Your task to perform on an android device: add a contact in the contacts app Image 0: 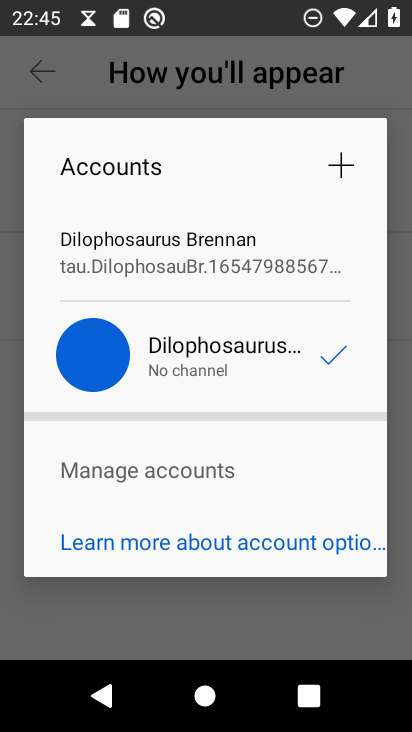
Step 0: press home button
Your task to perform on an android device: add a contact in the contacts app Image 1: 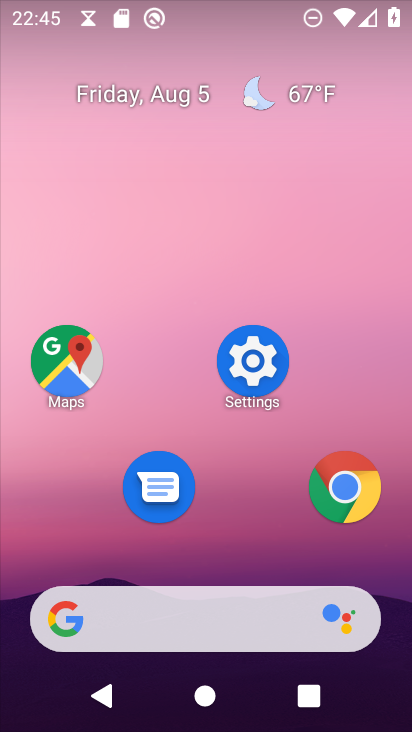
Step 1: drag from (186, 630) to (207, 87)
Your task to perform on an android device: add a contact in the contacts app Image 2: 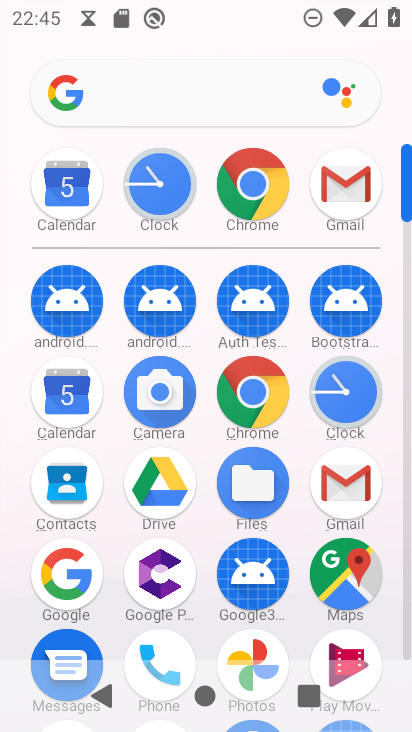
Step 2: click (63, 492)
Your task to perform on an android device: add a contact in the contacts app Image 3: 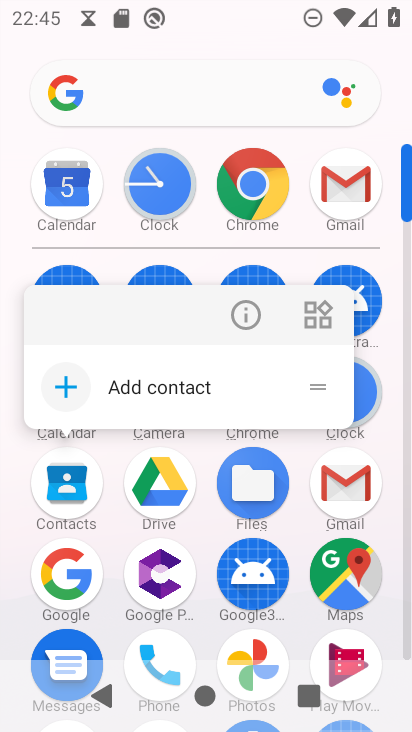
Step 3: click (63, 496)
Your task to perform on an android device: add a contact in the contacts app Image 4: 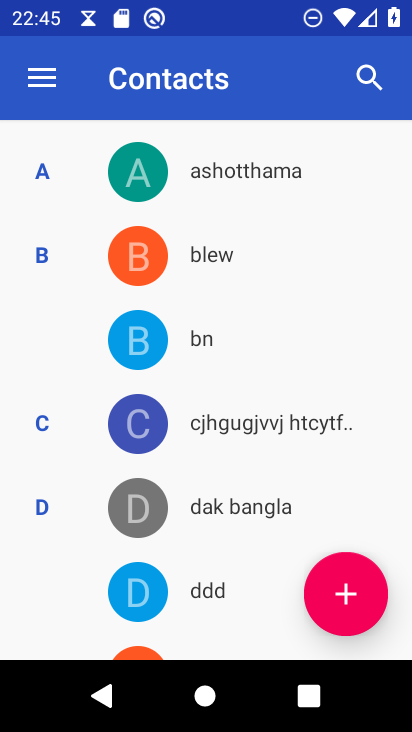
Step 4: click (342, 583)
Your task to perform on an android device: add a contact in the contacts app Image 5: 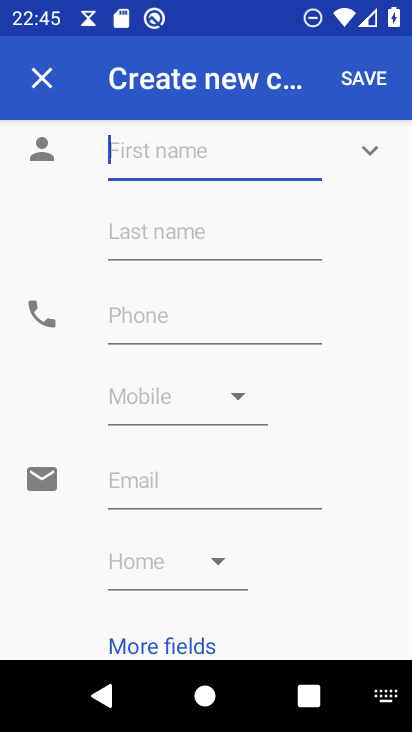
Step 5: type "wsdrree"
Your task to perform on an android device: add a contact in the contacts app Image 6: 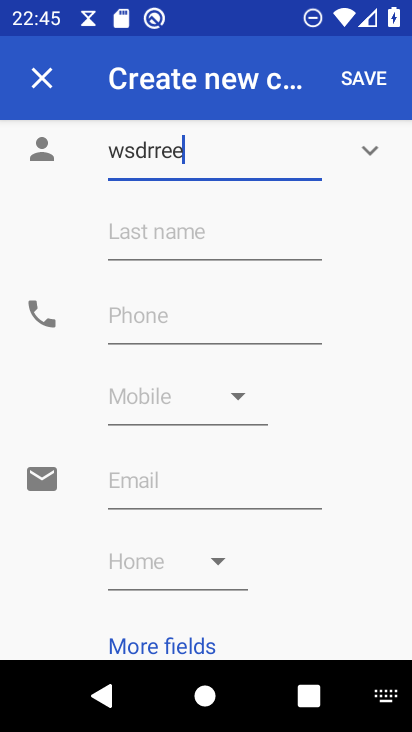
Step 6: click (149, 314)
Your task to perform on an android device: add a contact in the contacts app Image 7: 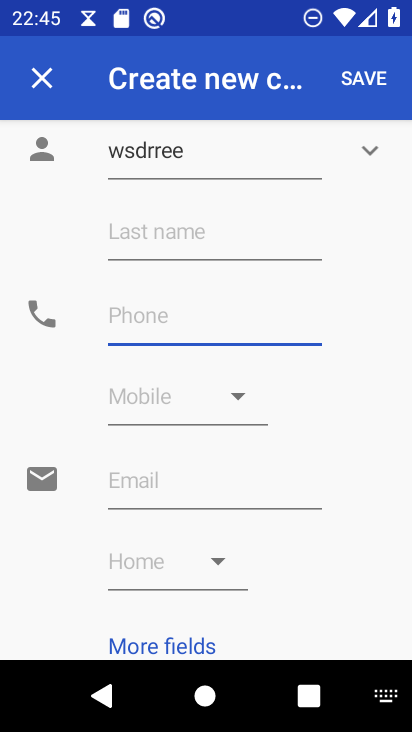
Step 7: type "1554467"
Your task to perform on an android device: add a contact in the contacts app Image 8: 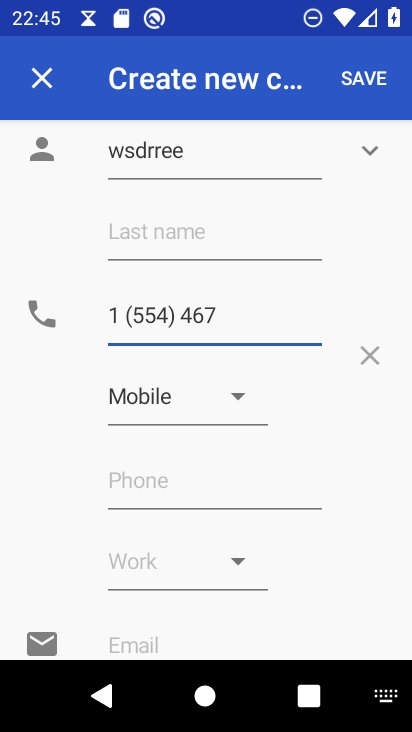
Step 8: click (366, 77)
Your task to perform on an android device: add a contact in the contacts app Image 9: 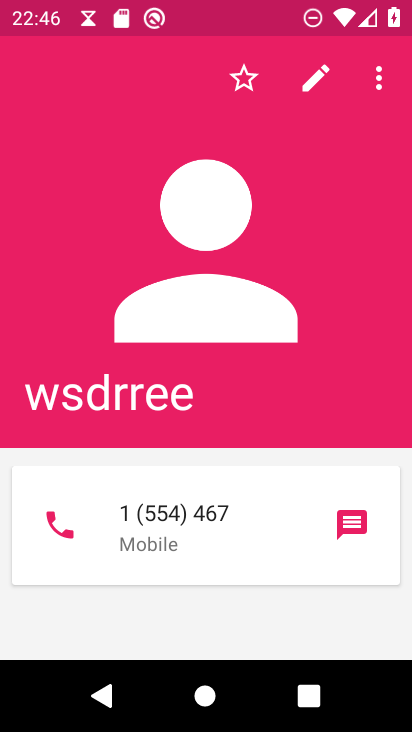
Step 9: task complete